Your task to perform on an android device: What is the news today? Image 0: 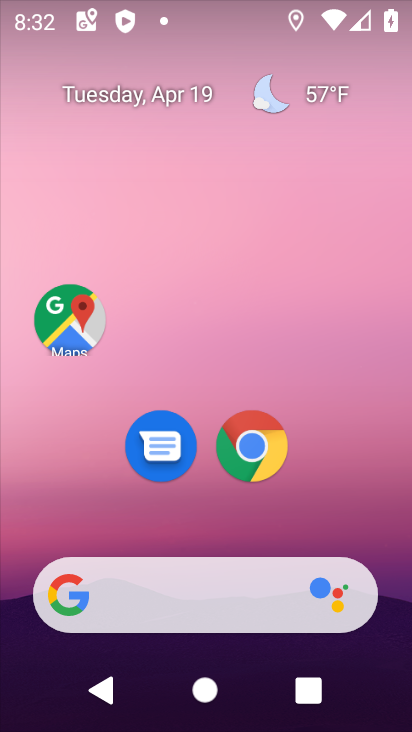
Step 0: click (253, 448)
Your task to perform on an android device: What is the news today? Image 1: 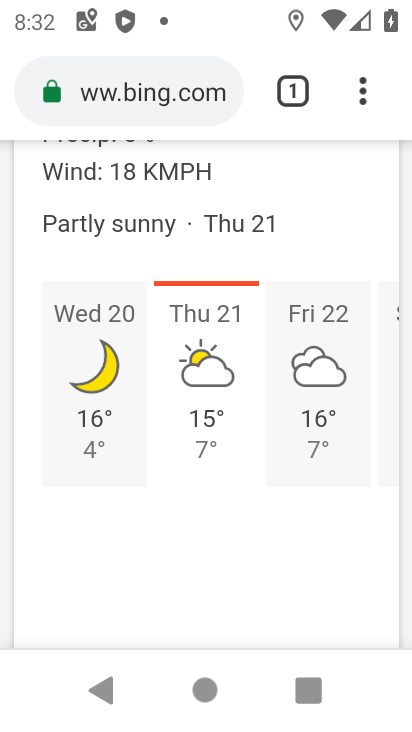
Step 1: click (300, 96)
Your task to perform on an android device: What is the news today? Image 2: 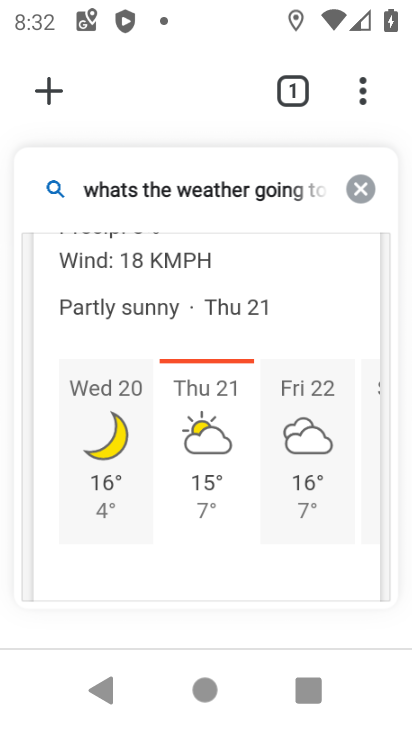
Step 2: click (41, 87)
Your task to perform on an android device: What is the news today? Image 3: 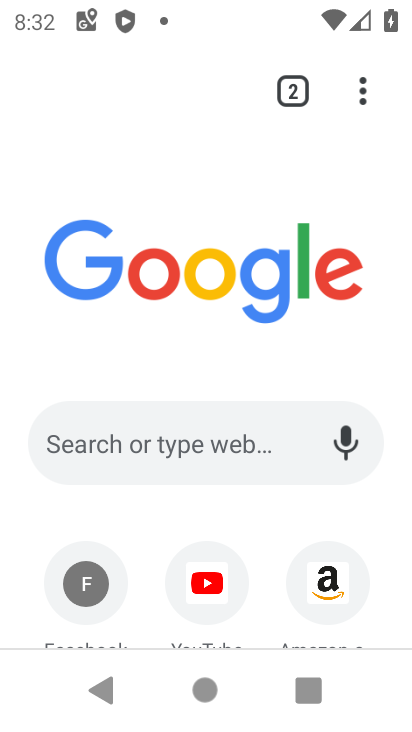
Step 3: click (120, 451)
Your task to perform on an android device: What is the news today? Image 4: 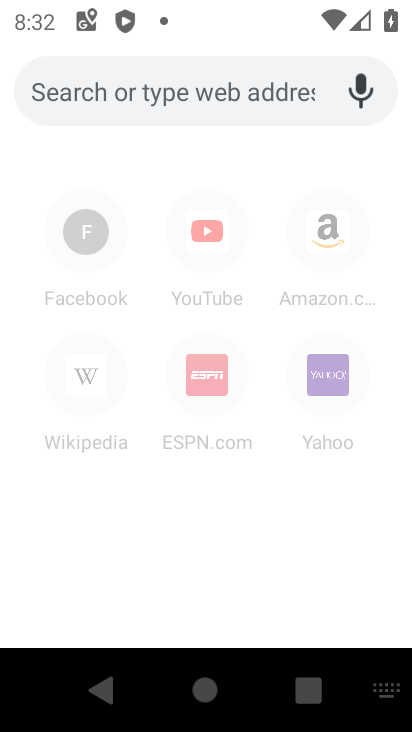
Step 4: type "what is the news today"
Your task to perform on an android device: What is the news today? Image 5: 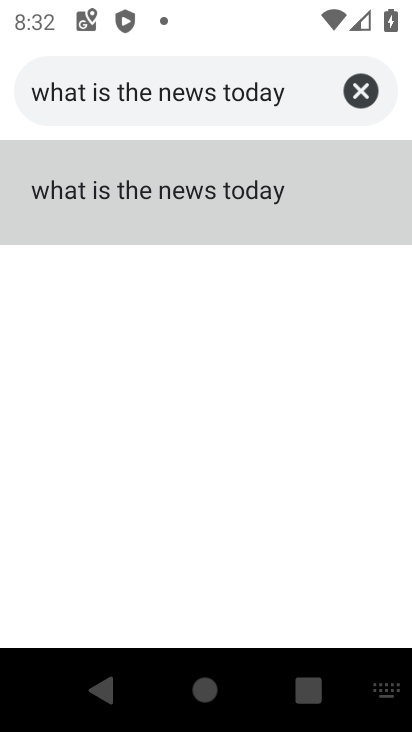
Step 5: click (153, 191)
Your task to perform on an android device: What is the news today? Image 6: 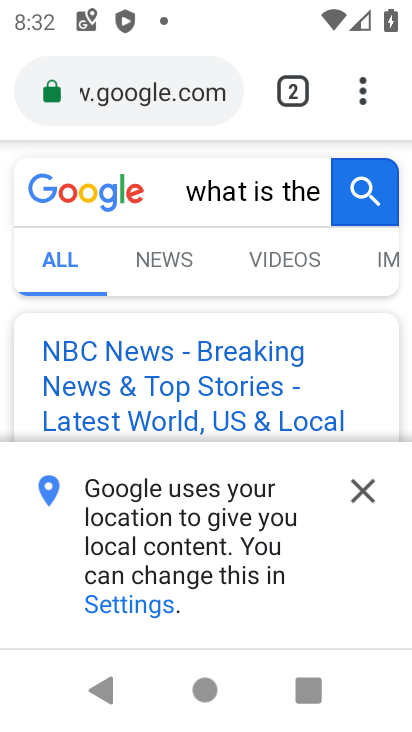
Step 6: click (363, 489)
Your task to perform on an android device: What is the news today? Image 7: 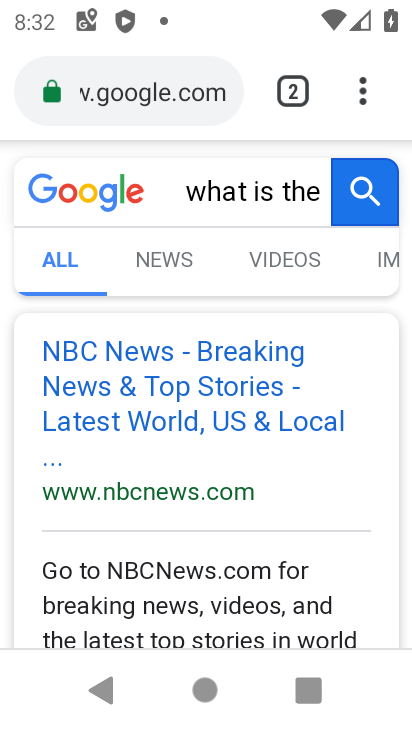
Step 7: click (167, 264)
Your task to perform on an android device: What is the news today? Image 8: 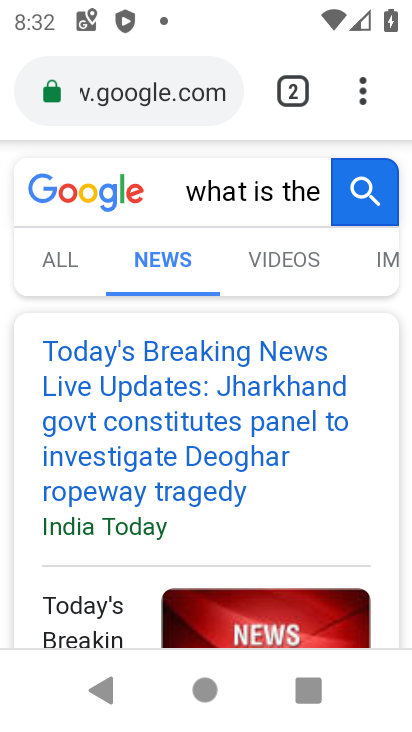
Step 8: task complete